Your task to perform on an android device: stop showing notifications on the lock screen Image 0: 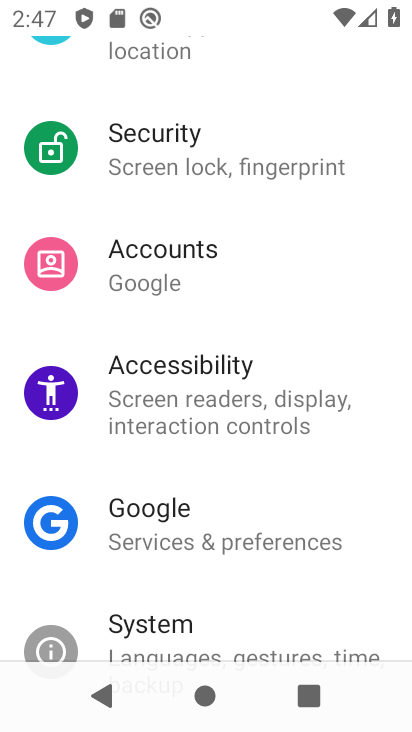
Step 0: drag from (241, 173) to (203, 663)
Your task to perform on an android device: stop showing notifications on the lock screen Image 1: 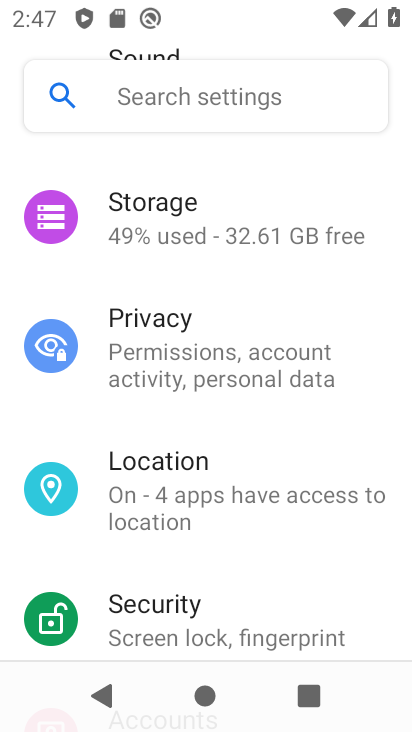
Step 1: drag from (189, 250) to (156, 726)
Your task to perform on an android device: stop showing notifications on the lock screen Image 2: 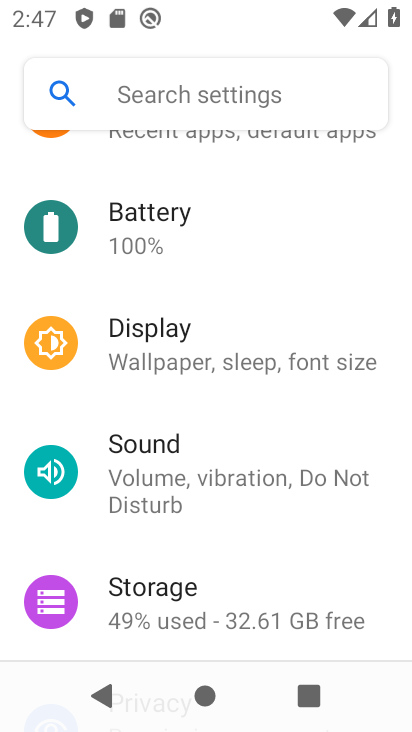
Step 2: drag from (224, 182) to (166, 726)
Your task to perform on an android device: stop showing notifications on the lock screen Image 3: 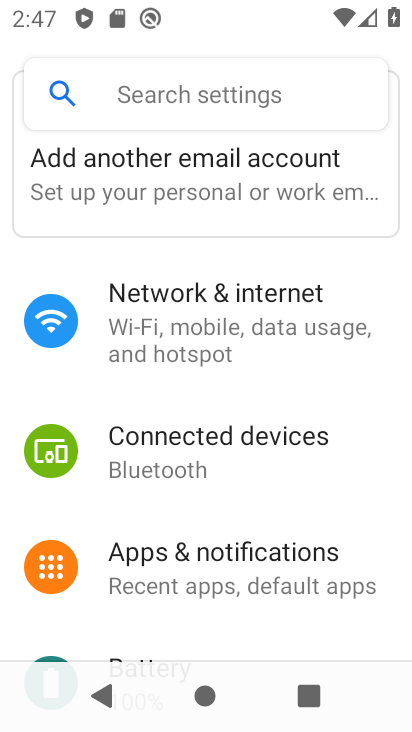
Step 3: click (212, 566)
Your task to perform on an android device: stop showing notifications on the lock screen Image 4: 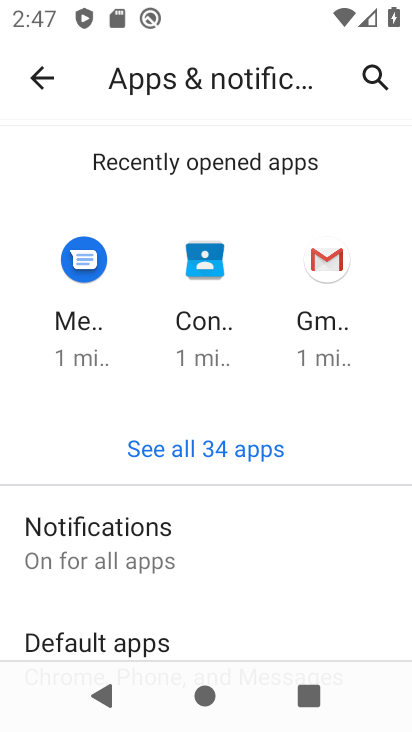
Step 4: click (135, 535)
Your task to perform on an android device: stop showing notifications on the lock screen Image 5: 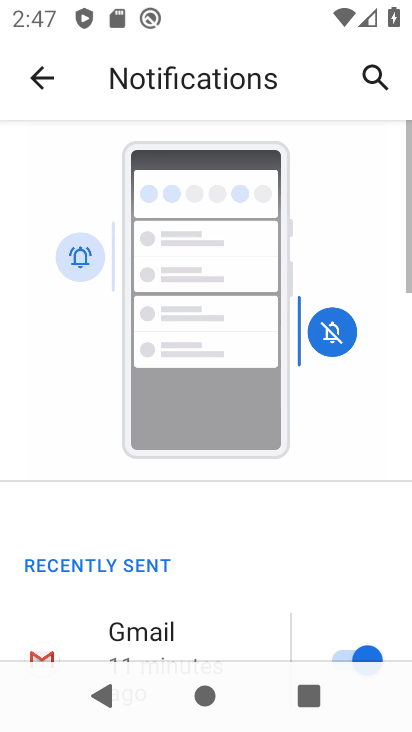
Step 5: drag from (169, 606) to (176, 113)
Your task to perform on an android device: stop showing notifications on the lock screen Image 6: 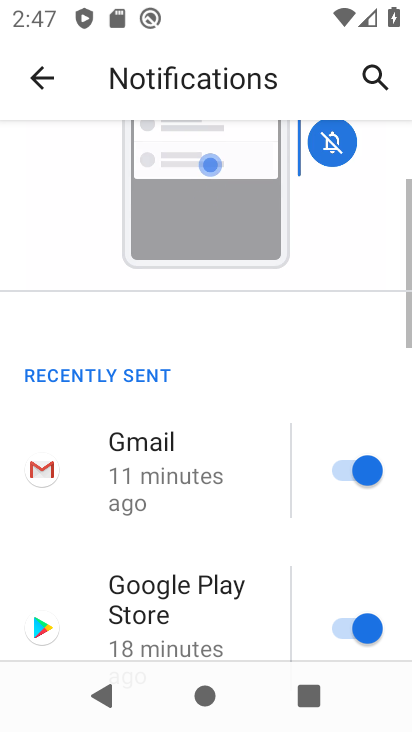
Step 6: drag from (117, 601) to (192, 34)
Your task to perform on an android device: stop showing notifications on the lock screen Image 7: 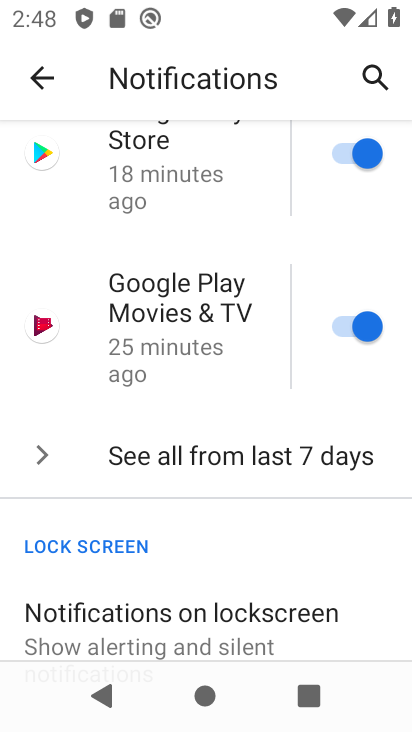
Step 7: click (137, 619)
Your task to perform on an android device: stop showing notifications on the lock screen Image 8: 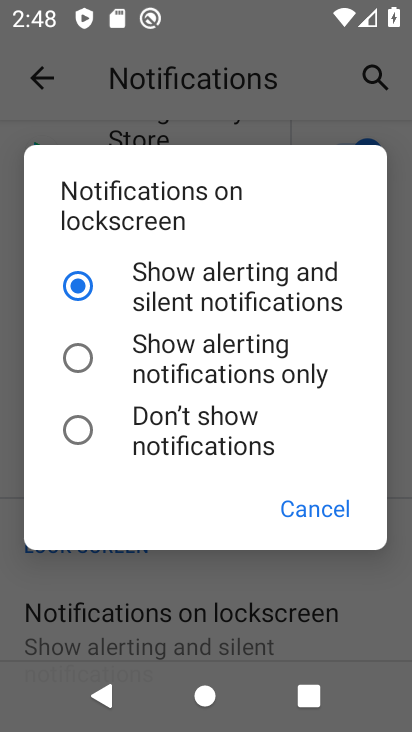
Step 8: click (90, 430)
Your task to perform on an android device: stop showing notifications on the lock screen Image 9: 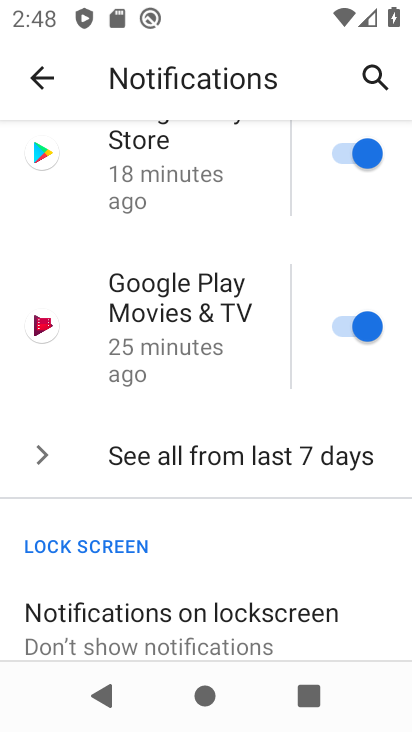
Step 9: task complete